Your task to perform on an android device: Go to Google maps Image 0: 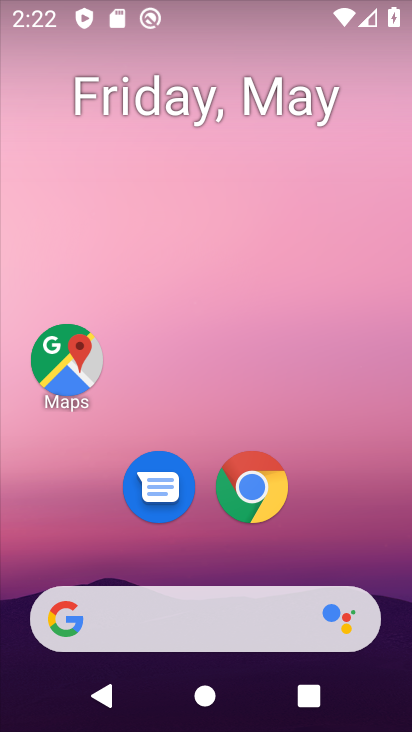
Step 0: click (73, 362)
Your task to perform on an android device: Go to Google maps Image 1: 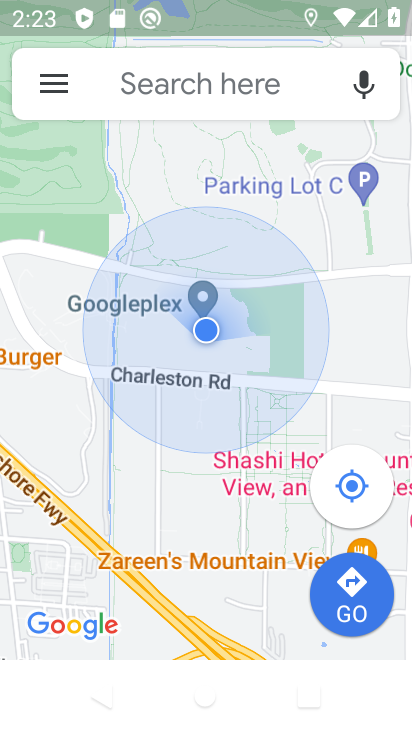
Step 1: task complete